Your task to perform on an android device: turn on airplane mode Image 0: 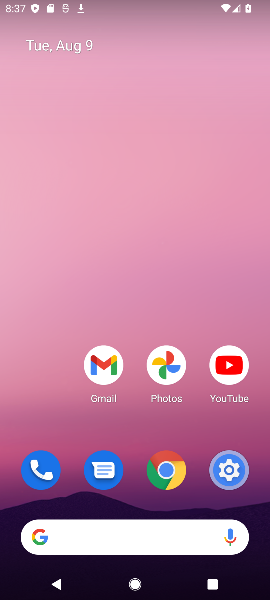
Step 0: click (228, 464)
Your task to perform on an android device: turn on airplane mode Image 1: 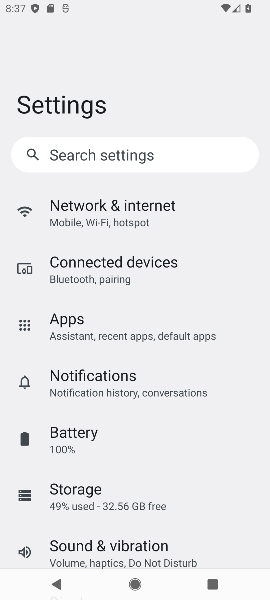
Step 1: click (125, 210)
Your task to perform on an android device: turn on airplane mode Image 2: 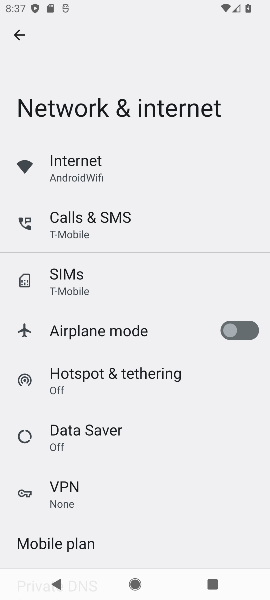
Step 2: click (244, 322)
Your task to perform on an android device: turn on airplane mode Image 3: 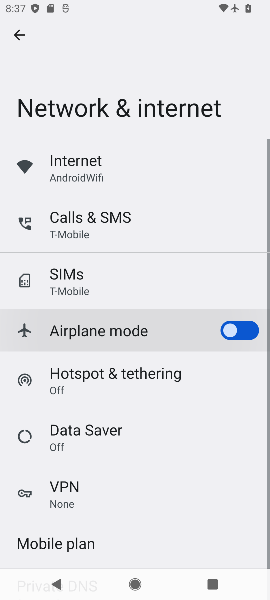
Step 3: task complete